Your task to perform on an android device: What's on the menu at Panera? Image 0: 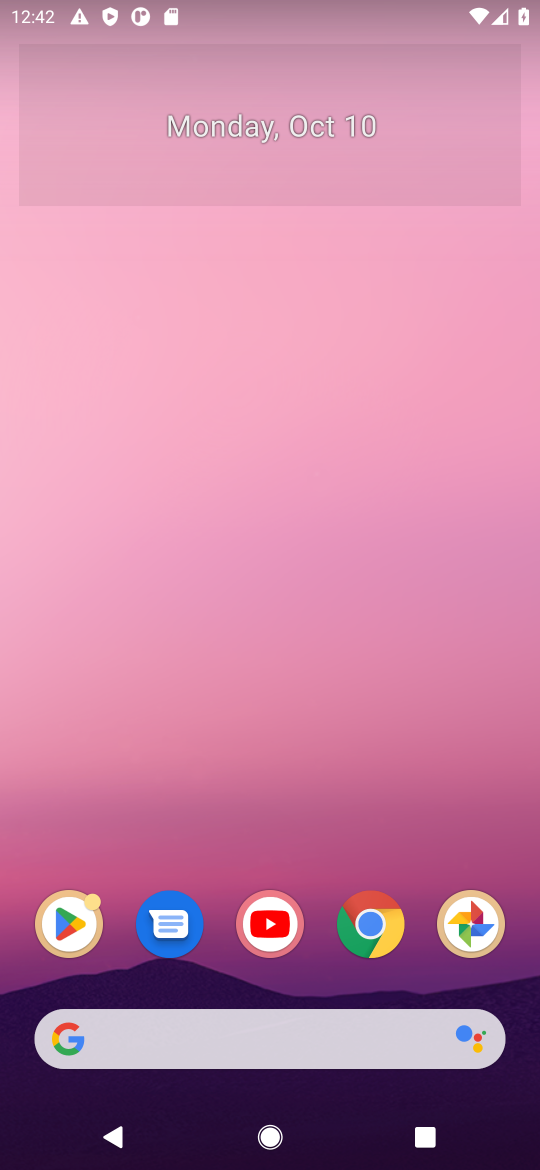
Step 0: drag from (182, 950) to (391, 10)
Your task to perform on an android device: What's on the menu at Panera? Image 1: 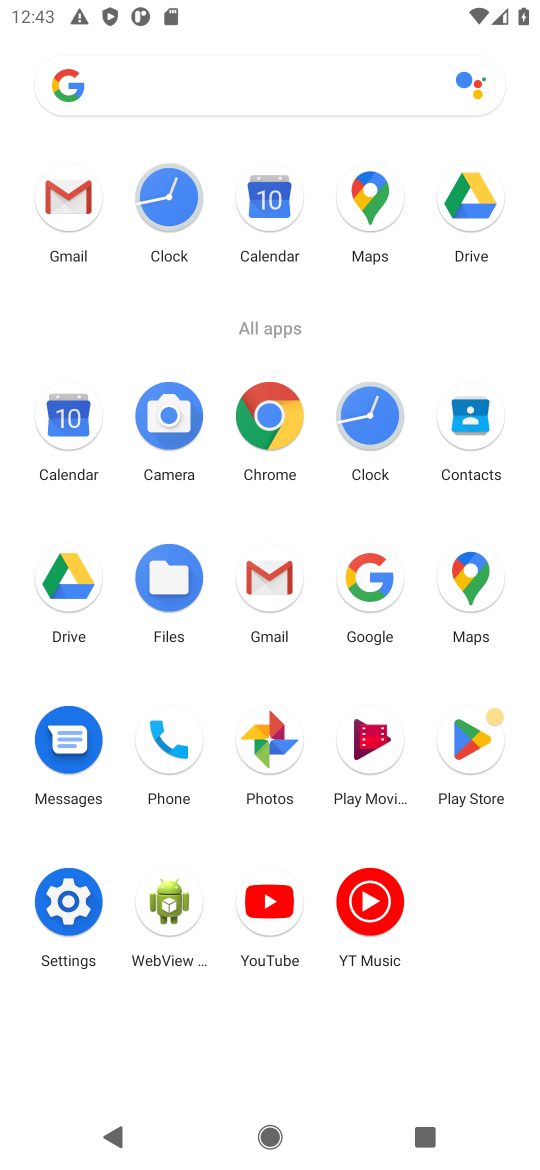
Step 1: click (273, 430)
Your task to perform on an android device: What's on the menu at Panera? Image 2: 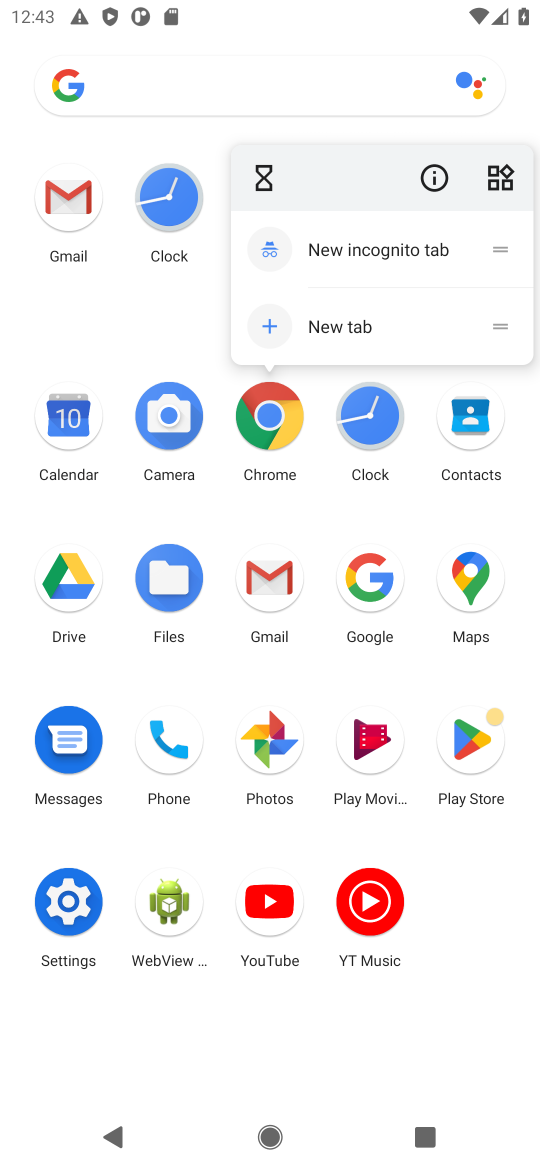
Step 2: click (307, 430)
Your task to perform on an android device: What's on the menu at Panera? Image 3: 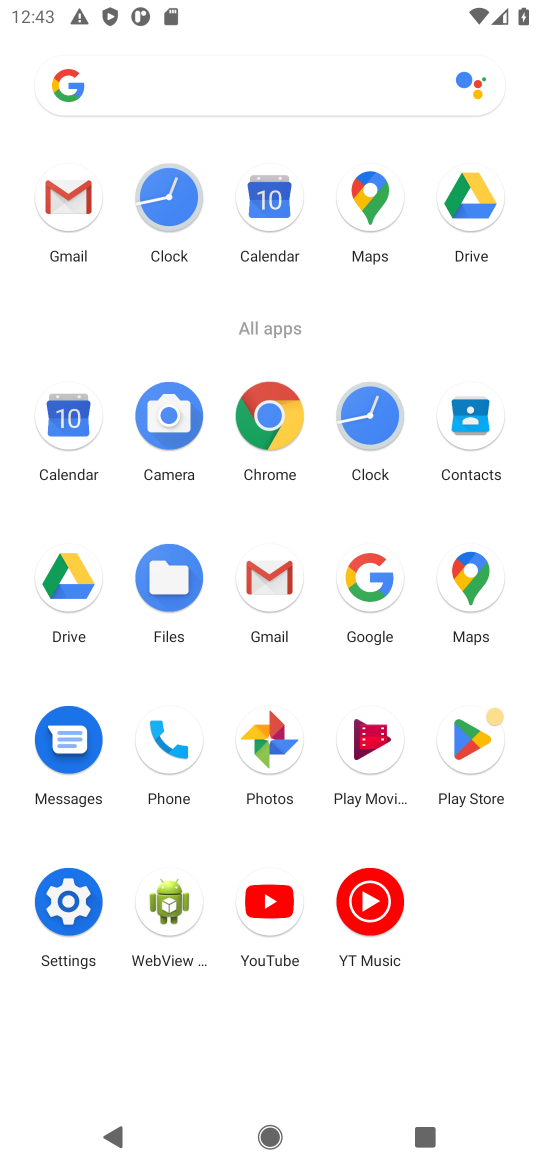
Step 3: click (279, 419)
Your task to perform on an android device: What's on the menu at Panera? Image 4: 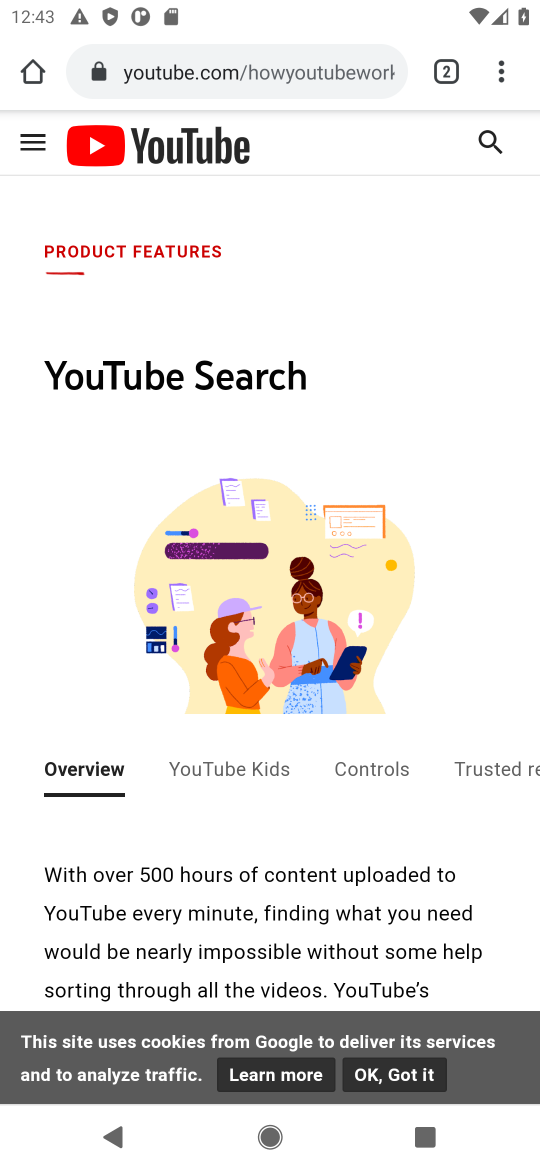
Step 4: click (314, 79)
Your task to perform on an android device: What's on the menu at Panera? Image 5: 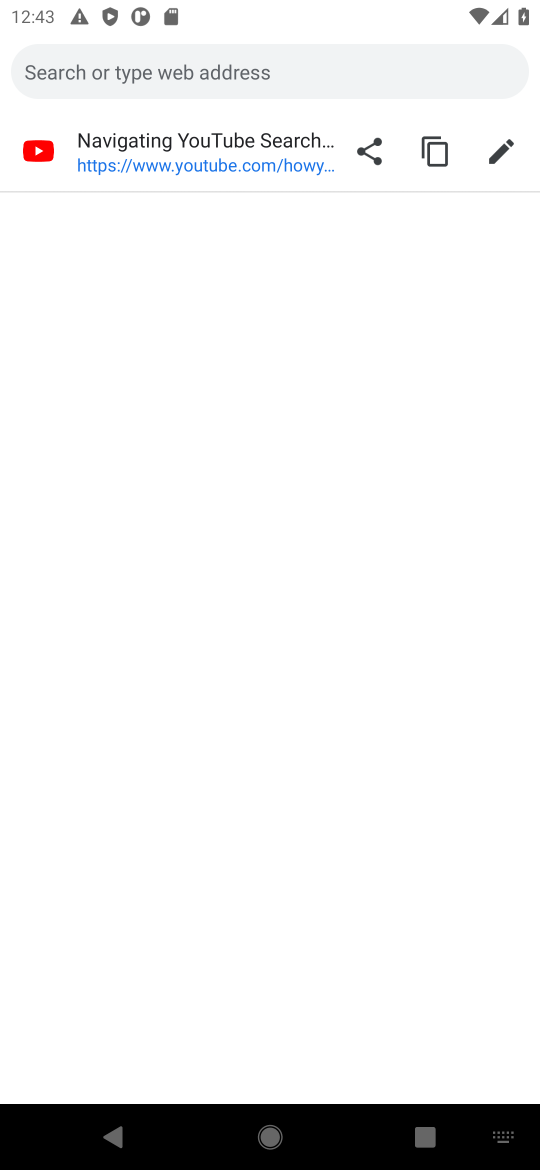
Step 5: type "What's on the menu at Panera?"
Your task to perform on an android device: What's on the menu at Panera? Image 6: 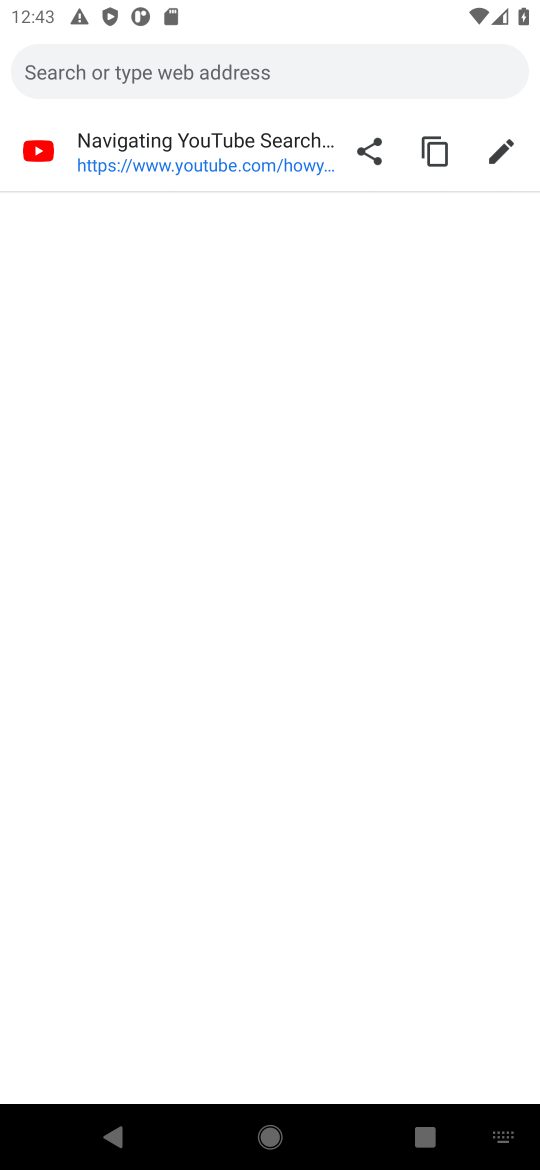
Step 6: click (145, 85)
Your task to perform on an android device: What's on the menu at Panera? Image 7: 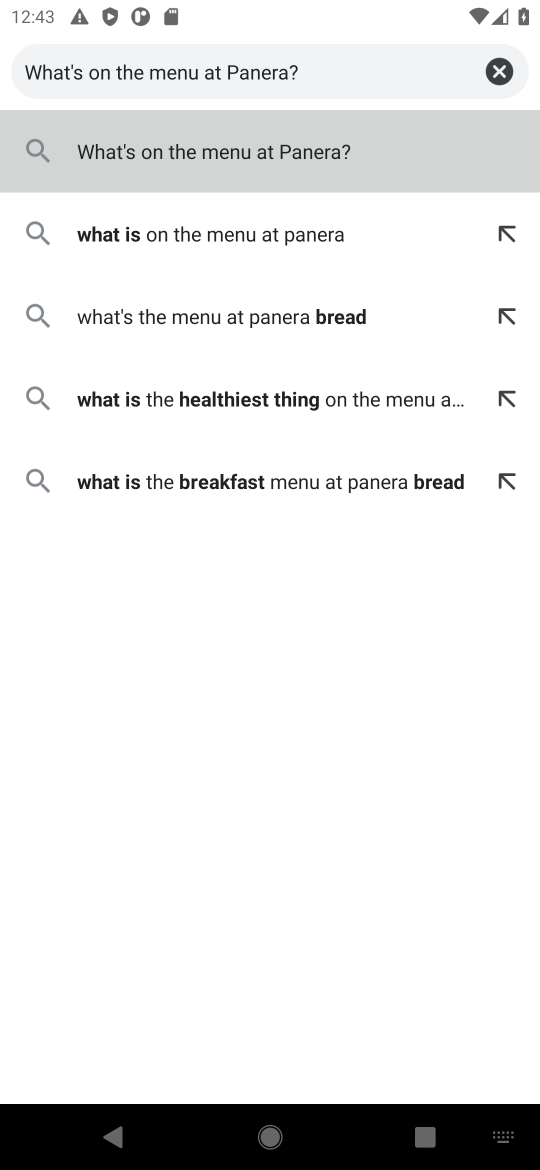
Step 7: press enter
Your task to perform on an android device: What's on the menu at Panera? Image 8: 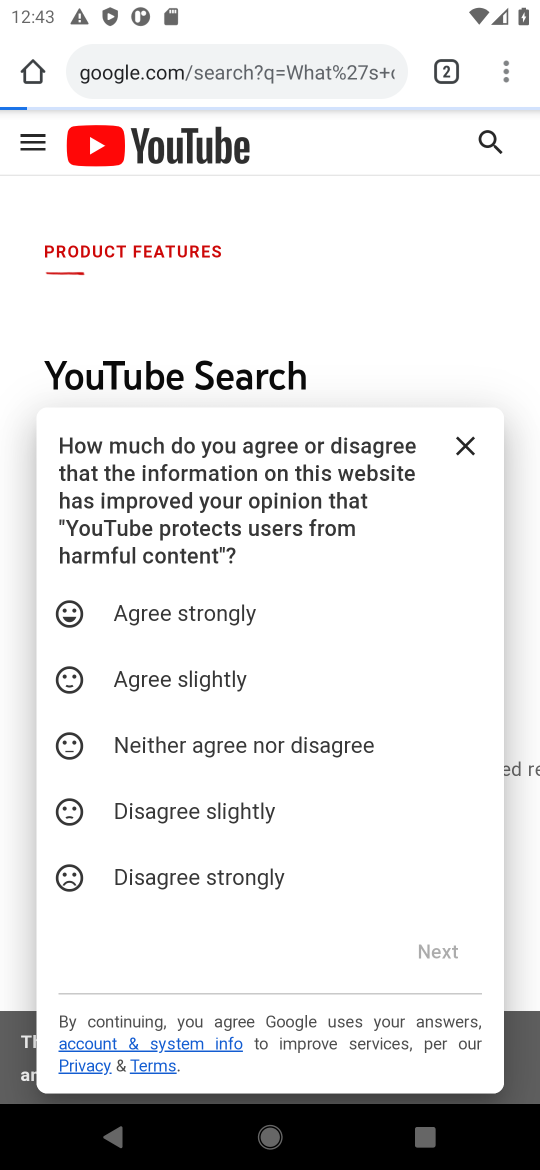
Step 8: press home button
Your task to perform on an android device: What's on the menu at Panera? Image 9: 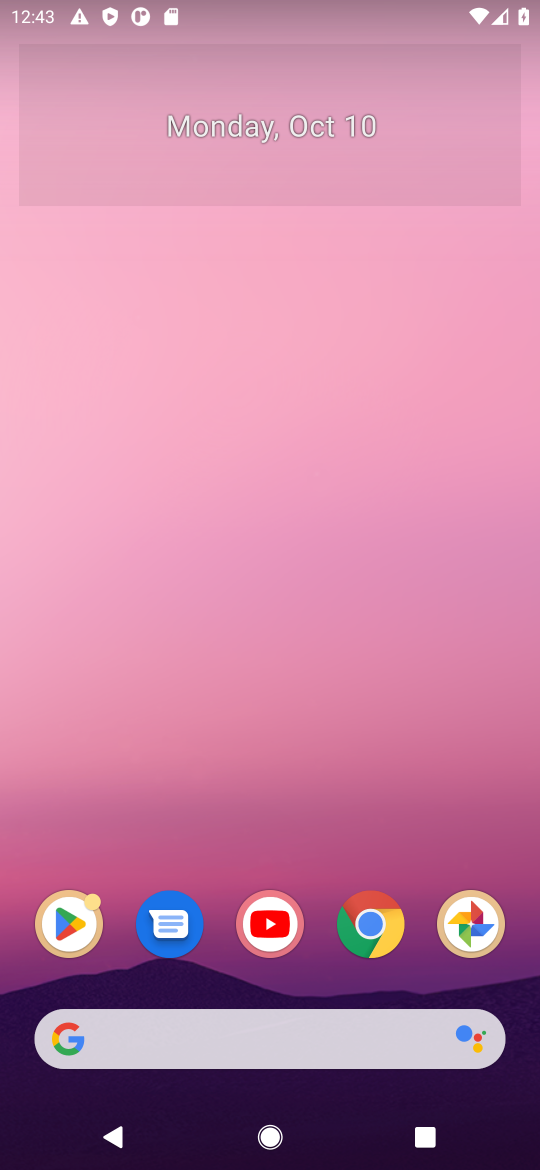
Step 9: drag from (306, 833) to (318, 39)
Your task to perform on an android device: What's on the menu at Panera? Image 10: 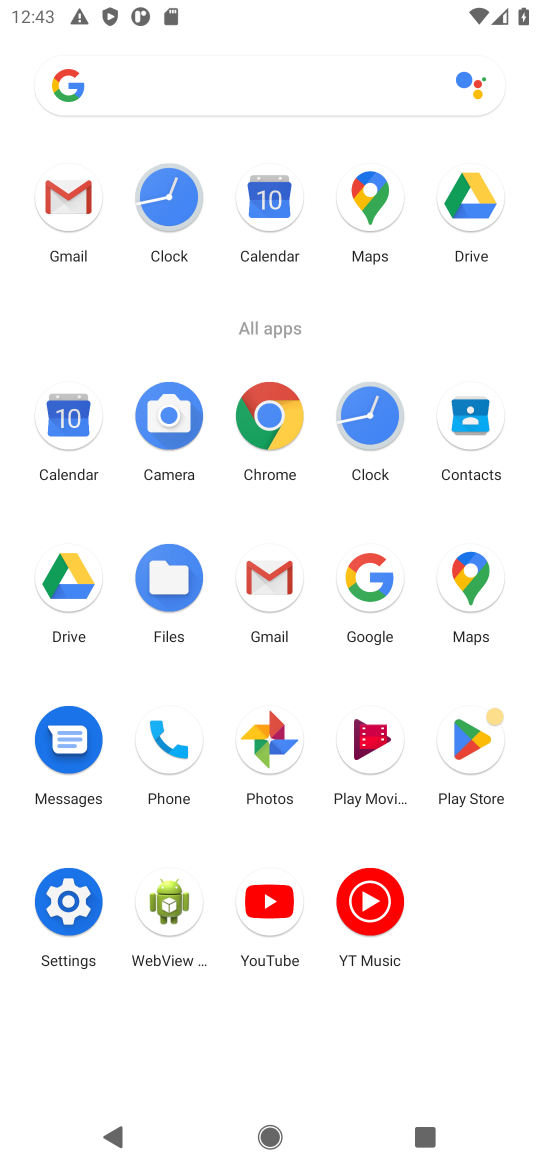
Step 10: click (279, 421)
Your task to perform on an android device: What's on the menu at Panera? Image 11: 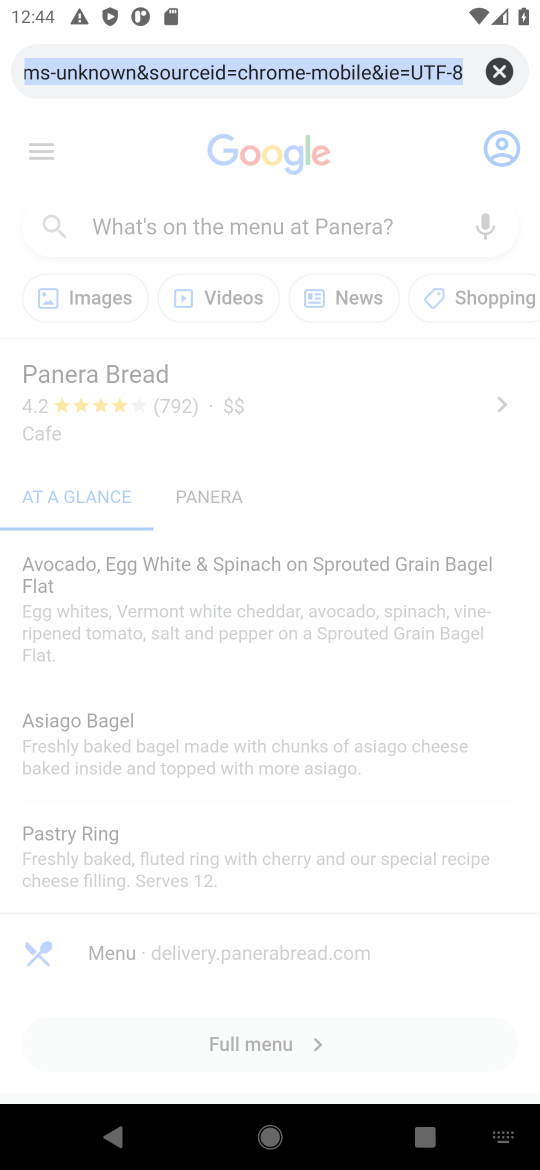
Step 11: click (439, 207)
Your task to perform on an android device: What's on the menu at Panera? Image 12: 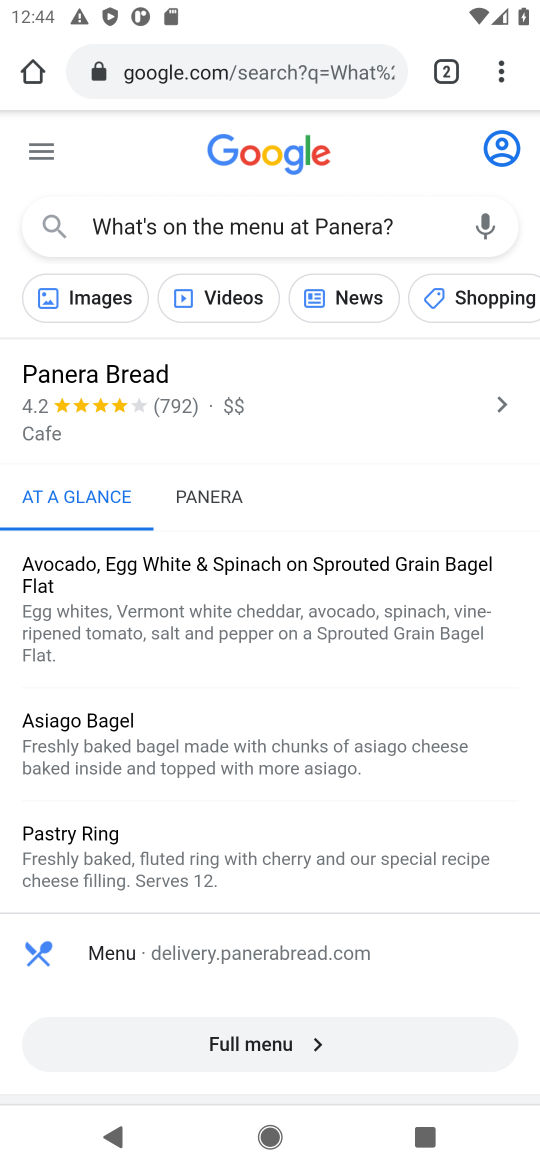
Step 12: drag from (244, 904) to (263, 433)
Your task to perform on an android device: What's on the menu at Panera? Image 13: 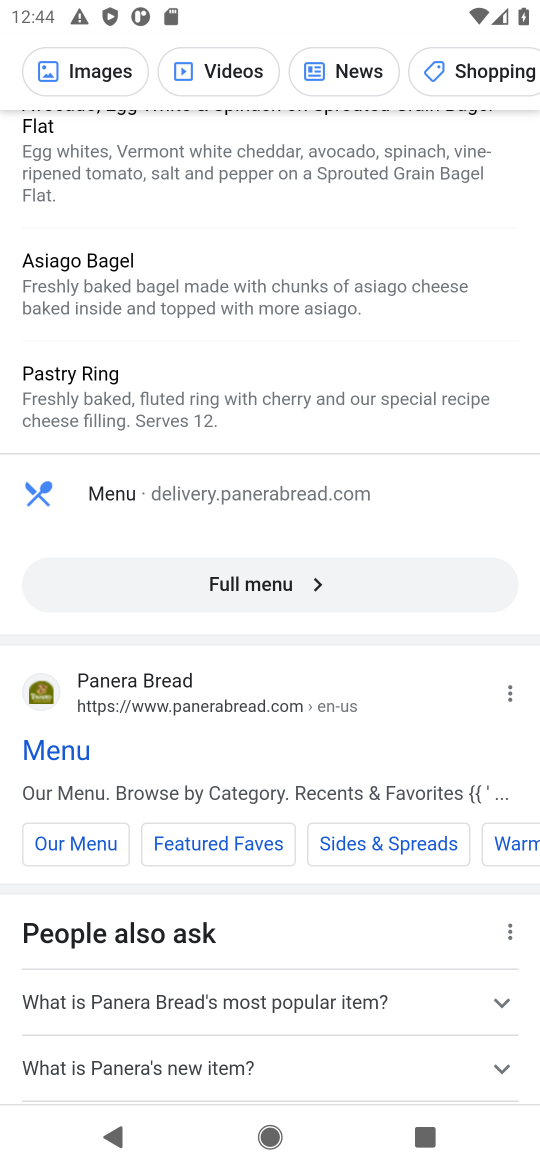
Step 13: drag from (312, 501) to (307, 1047)
Your task to perform on an android device: What's on the menu at Panera? Image 14: 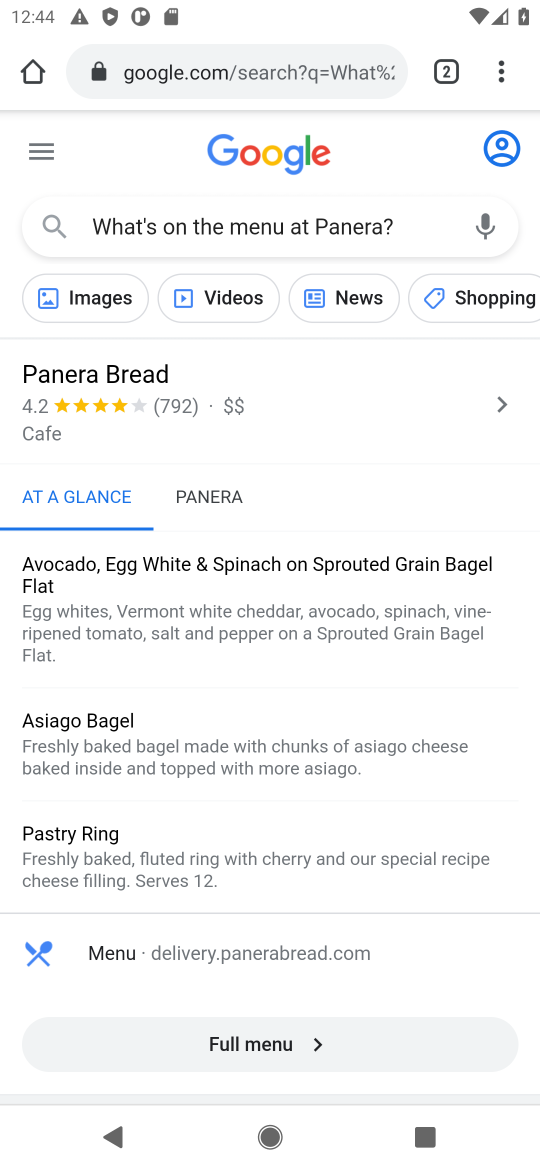
Step 14: click (383, 943)
Your task to perform on an android device: What's on the menu at Panera? Image 15: 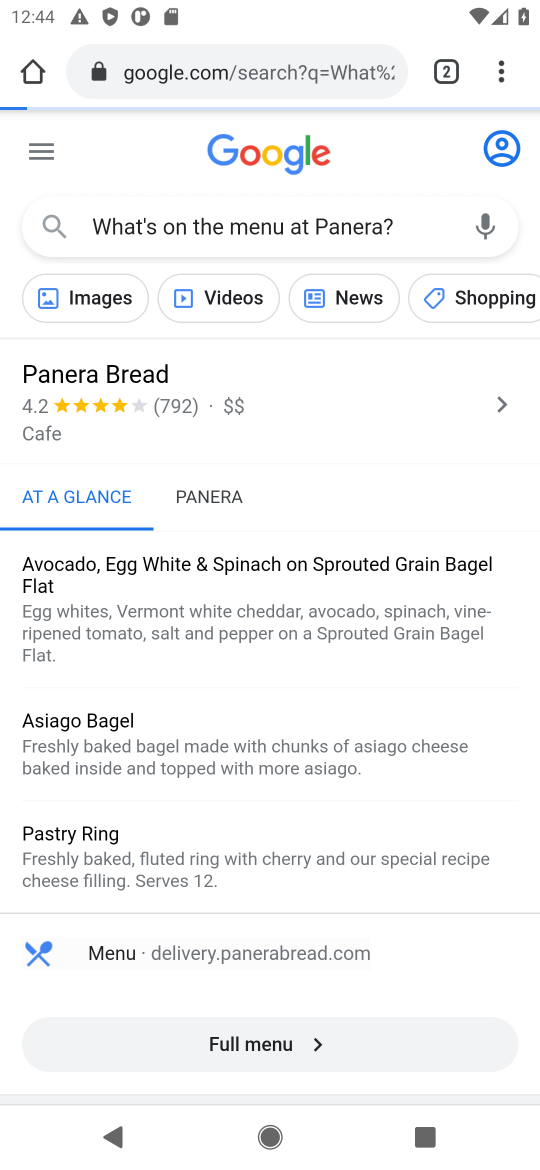
Step 15: task complete